Your task to perform on an android device: toggle javascript in the chrome app Image 0: 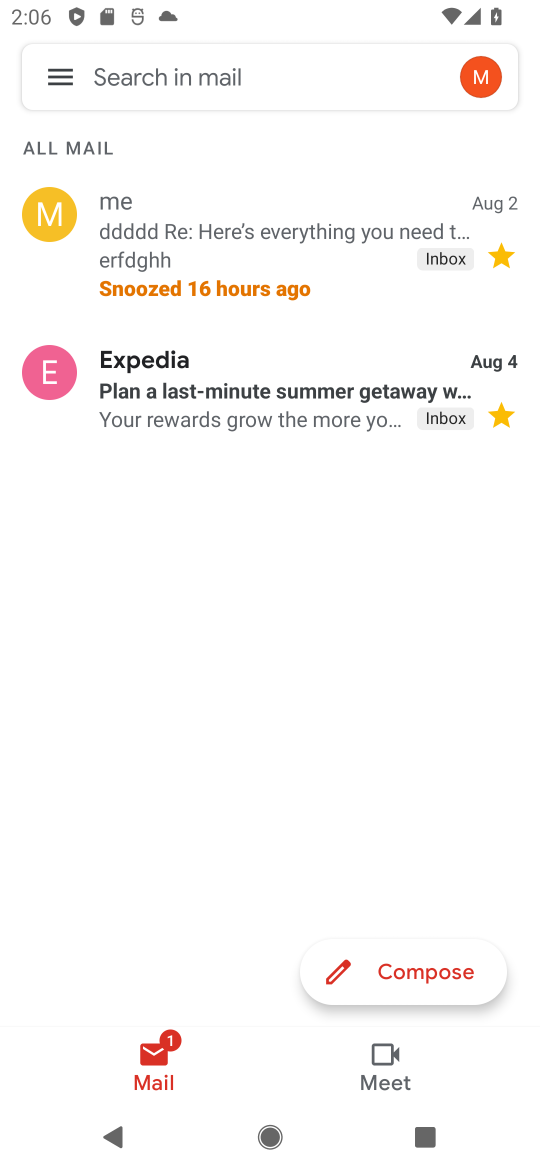
Step 0: press home button
Your task to perform on an android device: toggle javascript in the chrome app Image 1: 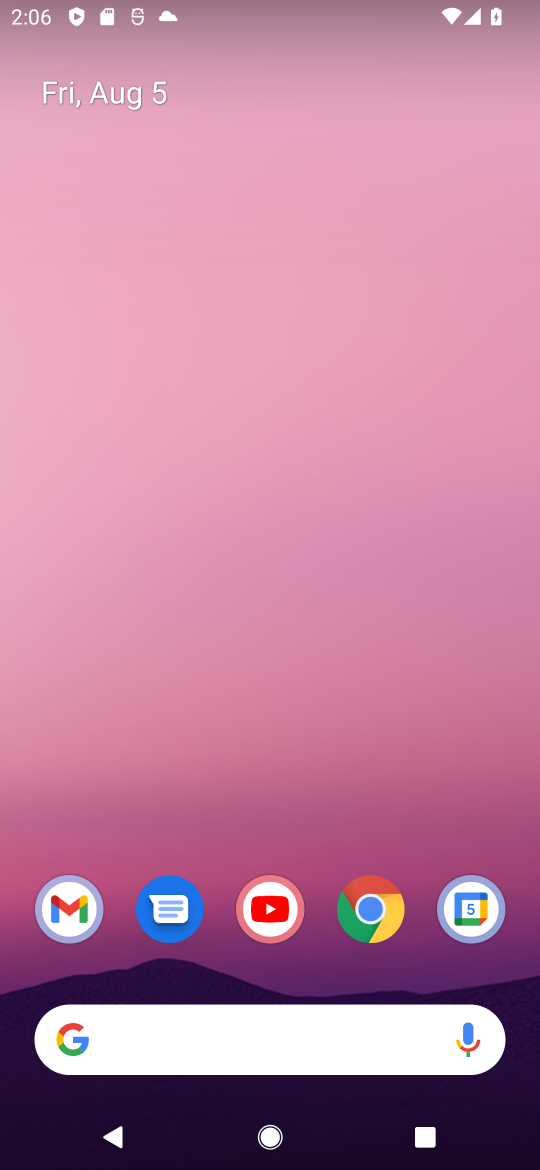
Step 1: drag from (227, 990) to (222, 240)
Your task to perform on an android device: toggle javascript in the chrome app Image 2: 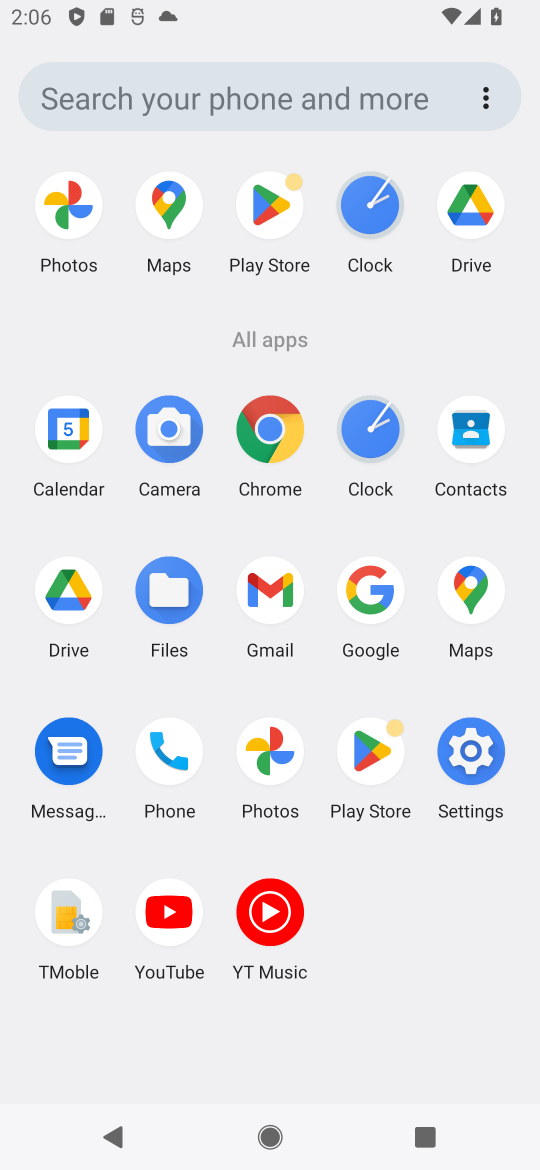
Step 2: click (264, 431)
Your task to perform on an android device: toggle javascript in the chrome app Image 3: 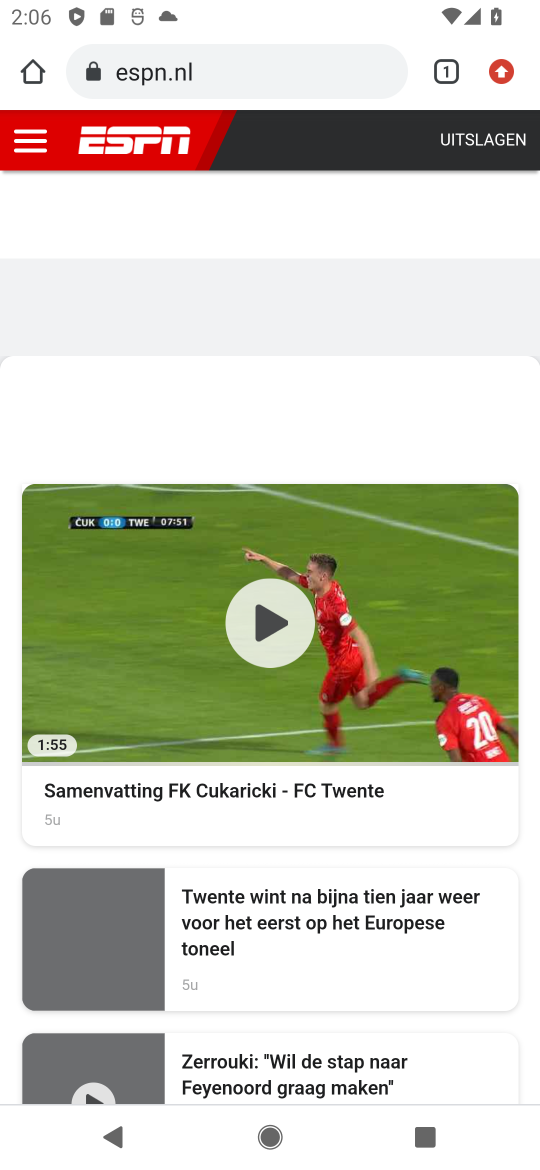
Step 3: click (504, 84)
Your task to perform on an android device: toggle javascript in the chrome app Image 4: 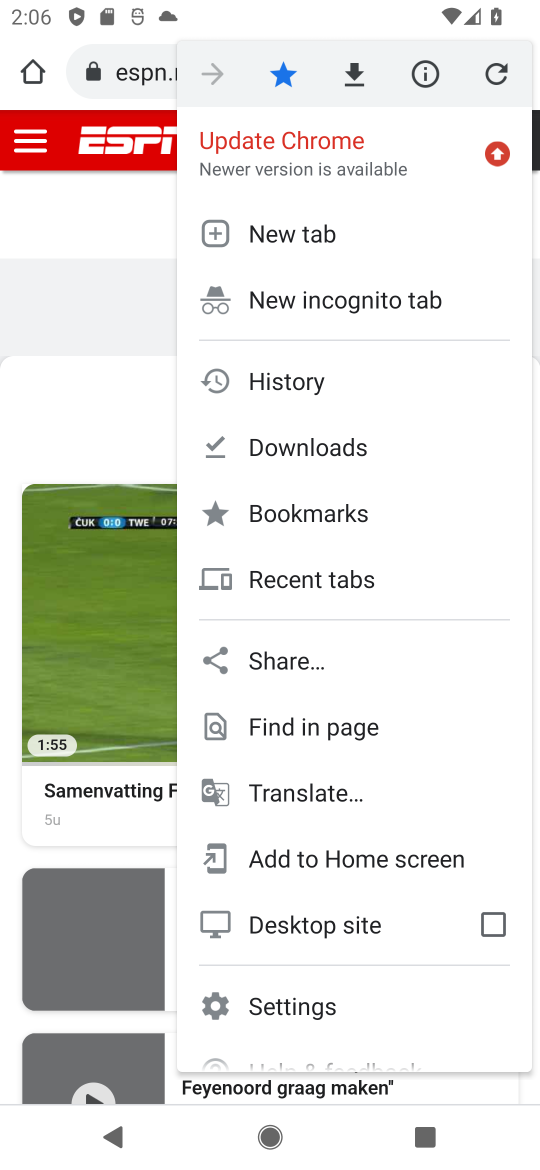
Step 4: click (367, 985)
Your task to perform on an android device: toggle javascript in the chrome app Image 5: 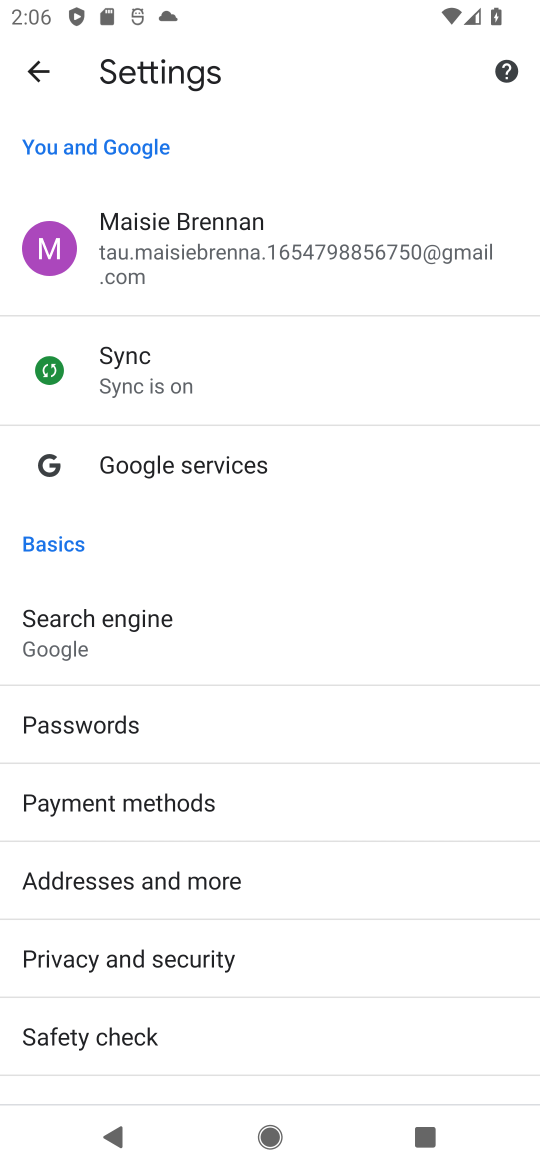
Step 5: drag from (234, 1023) to (248, 489)
Your task to perform on an android device: toggle javascript in the chrome app Image 6: 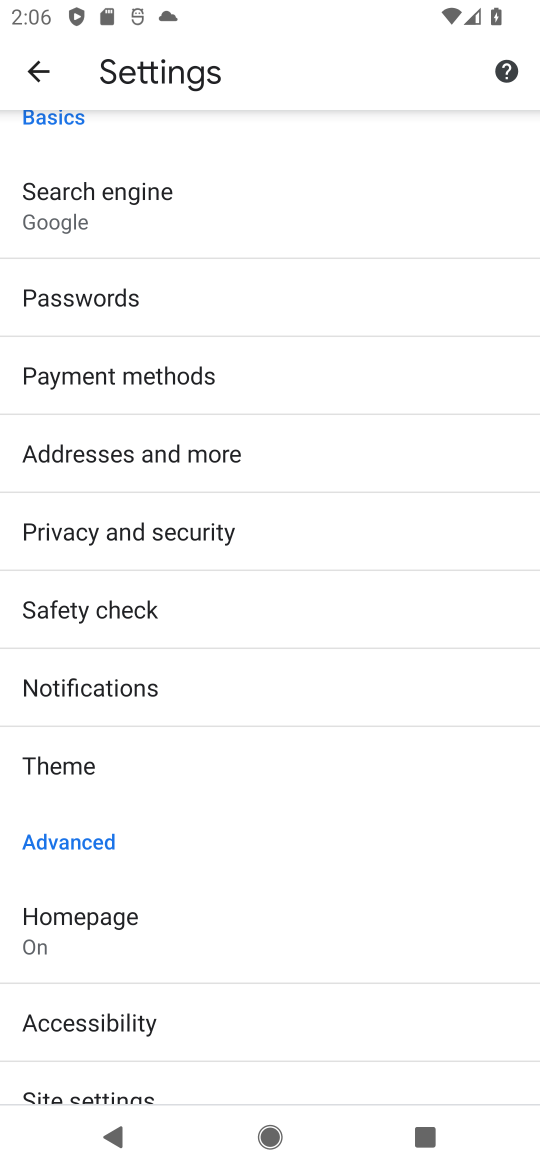
Step 6: drag from (228, 1027) to (257, 809)
Your task to perform on an android device: toggle javascript in the chrome app Image 7: 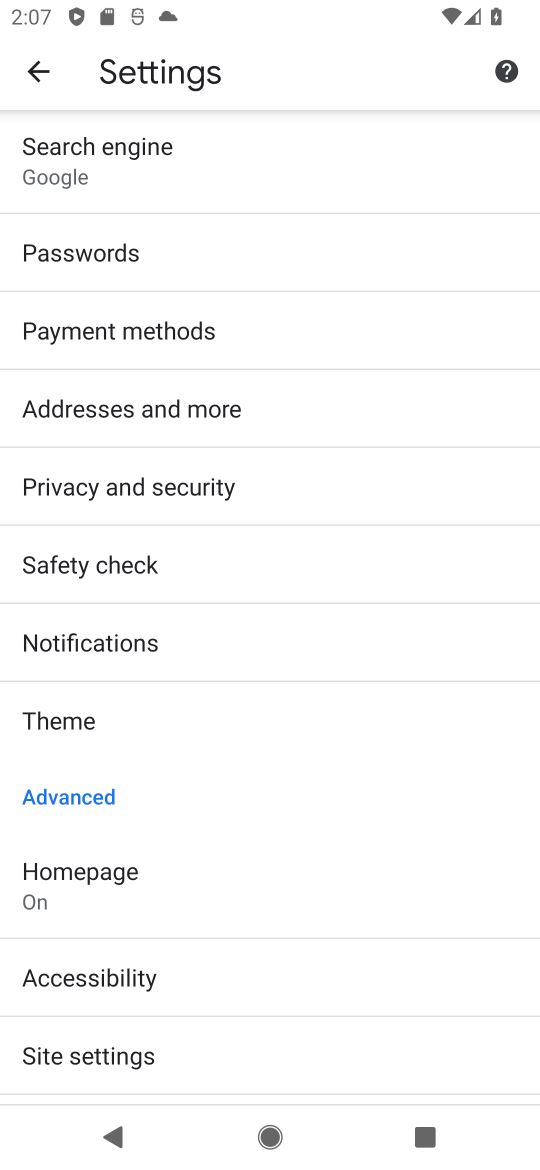
Step 7: click (187, 1040)
Your task to perform on an android device: toggle javascript in the chrome app Image 8: 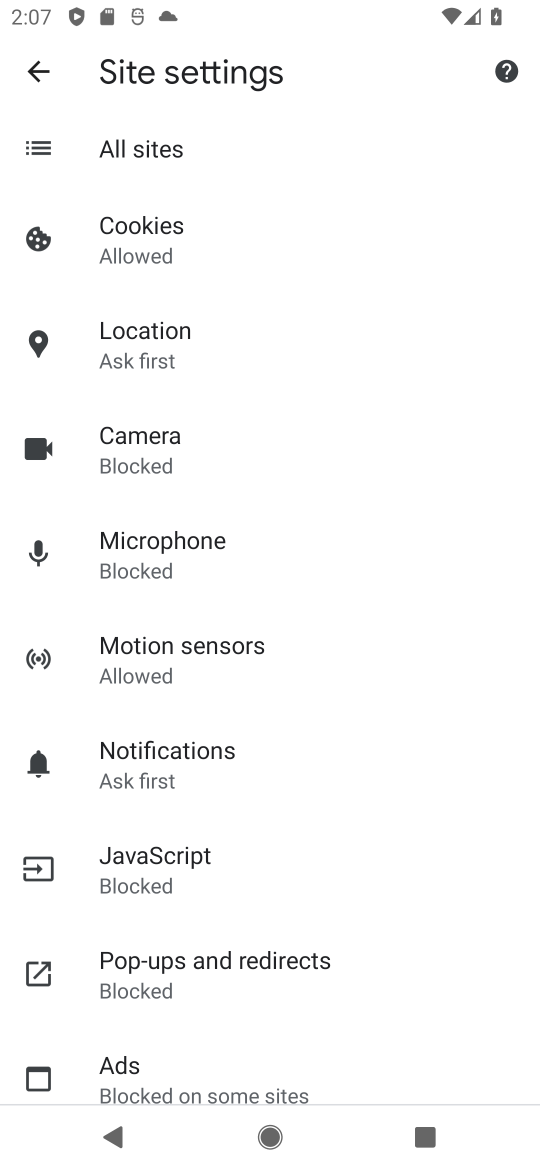
Step 8: click (191, 845)
Your task to perform on an android device: toggle javascript in the chrome app Image 9: 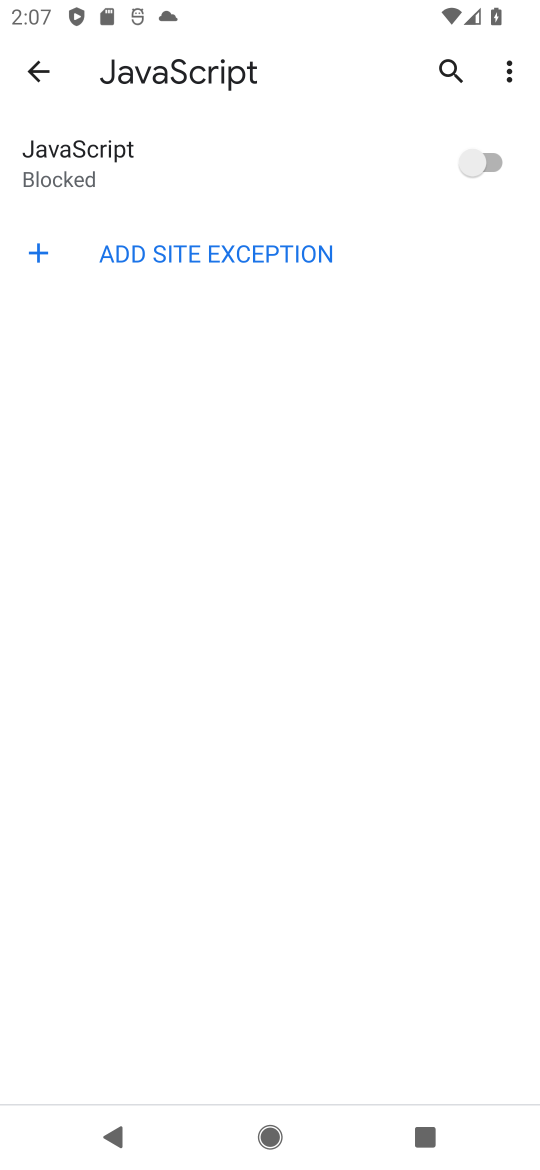
Step 9: click (454, 201)
Your task to perform on an android device: toggle javascript in the chrome app Image 10: 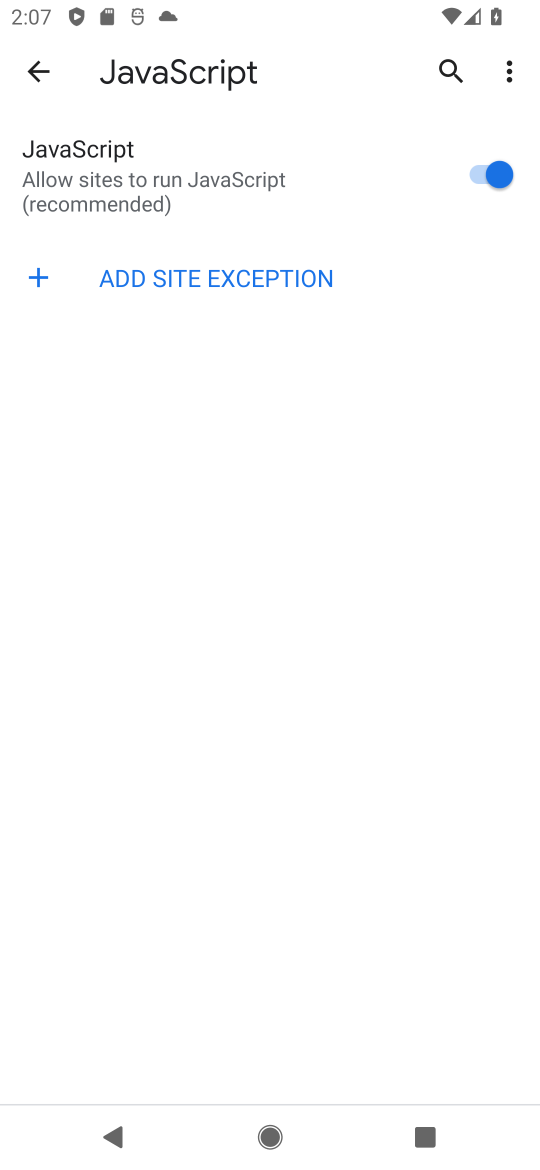
Step 10: task complete